Your task to perform on an android device: make emails show in primary in the gmail app Image 0: 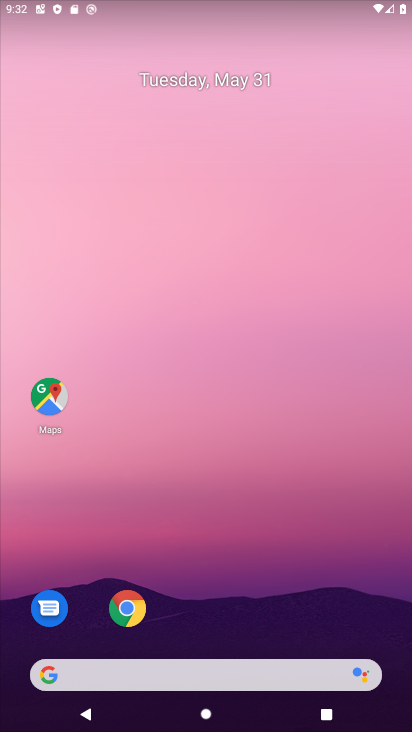
Step 0: drag from (217, 630) to (202, 189)
Your task to perform on an android device: make emails show in primary in the gmail app Image 1: 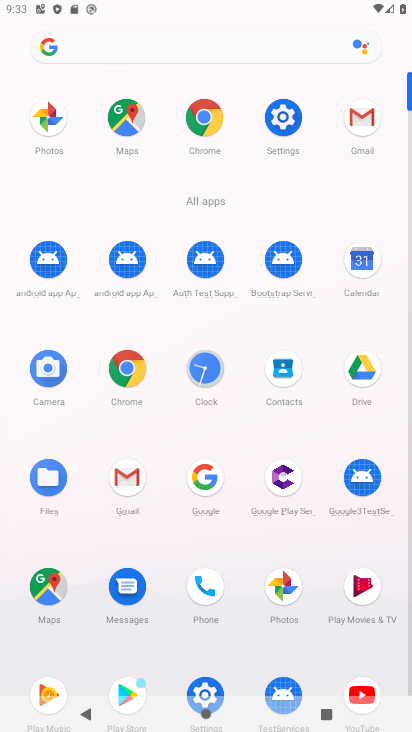
Step 1: click (127, 501)
Your task to perform on an android device: make emails show in primary in the gmail app Image 2: 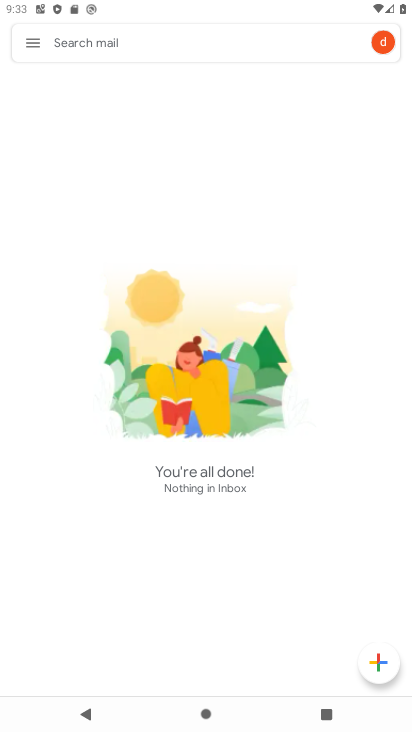
Step 2: task complete